Your task to perform on an android device: toggle location history Image 0: 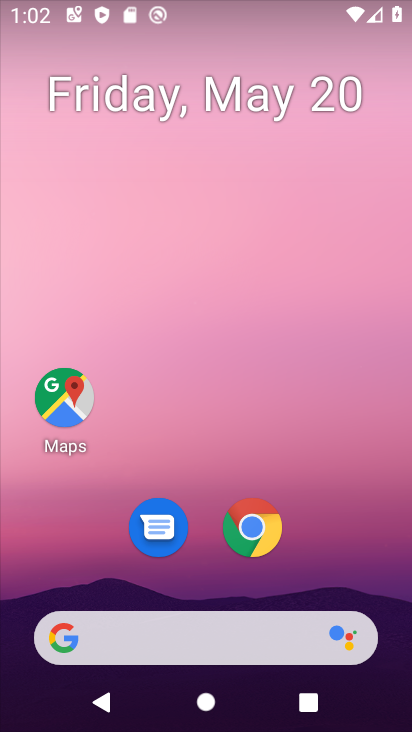
Step 0: press home button
Your task to perform on an android device: toggle location history Image 1: 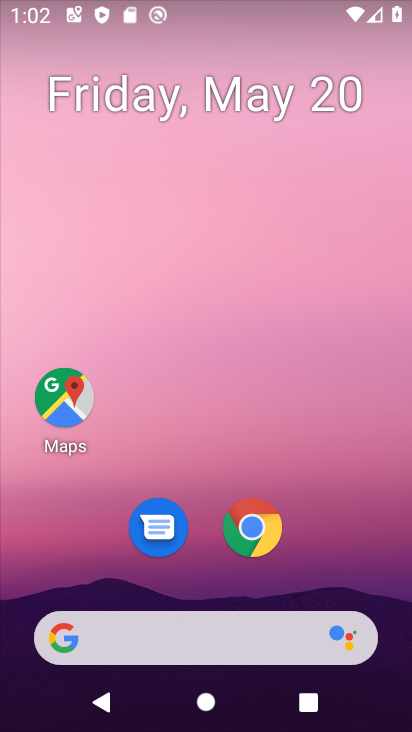
Step 1: click (285, 82)
Your task to perform on an android device: toggle location history Image 2: 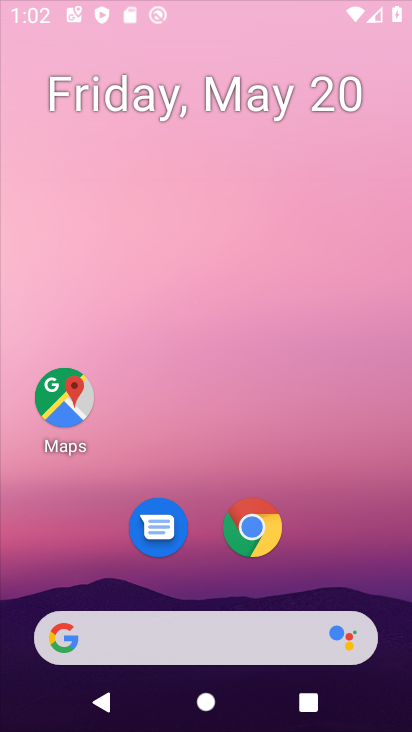
Step 2: drag from (177, 629) to (301, 368)
Your task to perform on an android device: toggle location history Image 3: 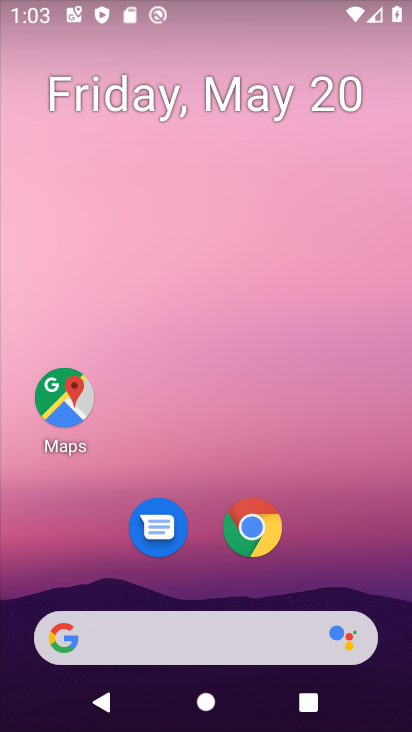
Step 3: click (65, 398)
Your task to perform on an android device: toggle location history Image 4: 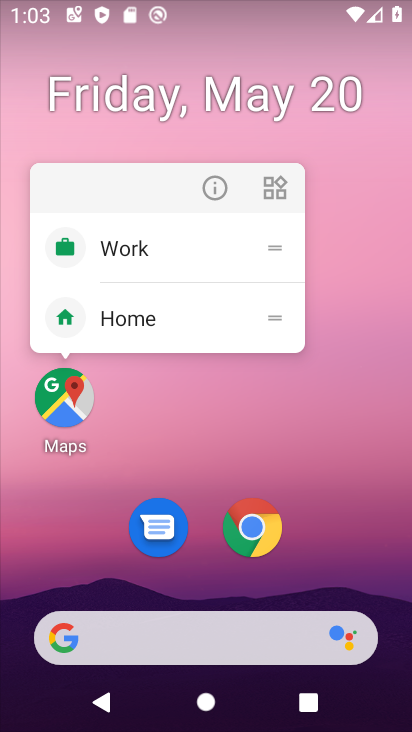
Step 4: click (57, 413)
Your task to perform on an android device: toggle location history Image 5: 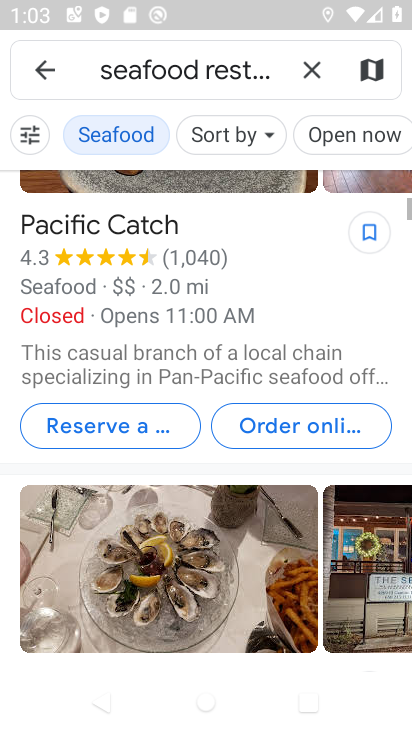
Step 5: click (51, 69)
Your task to perform on an android device: toggle location history Image 6: 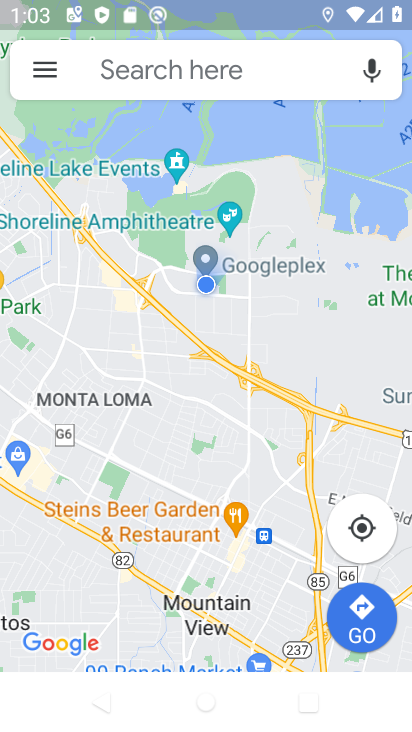
Step 6: click (45, 71)
Your task to perform on an android device: toggle location history Image 7: 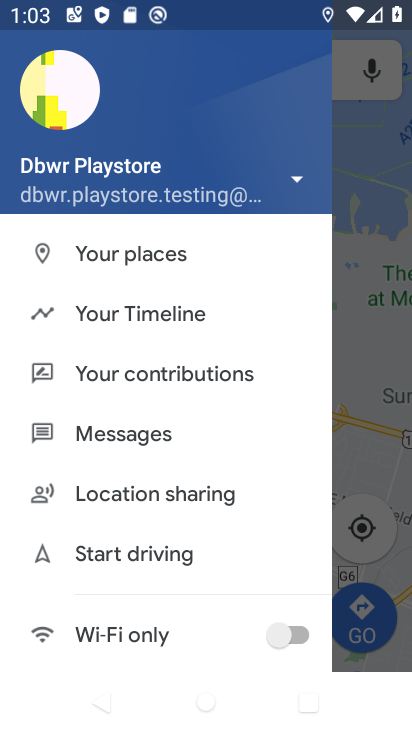
Step 7: click (123, 310)
Your task to perform on an android device: toggle location history Image 8: 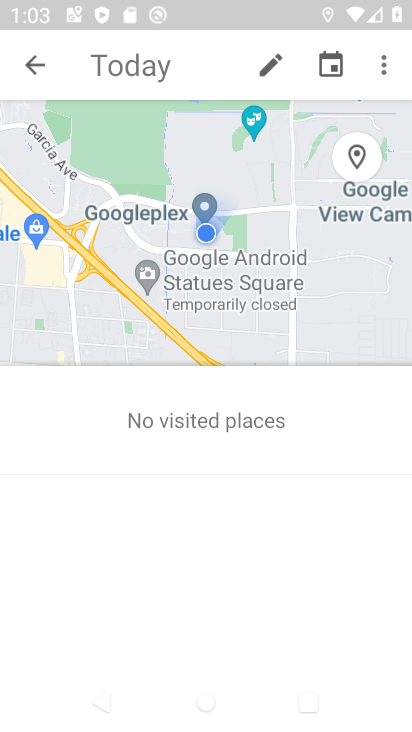
Step 8: click (382, 70)
Your task to perform on an android device: toggle location history Image 9: 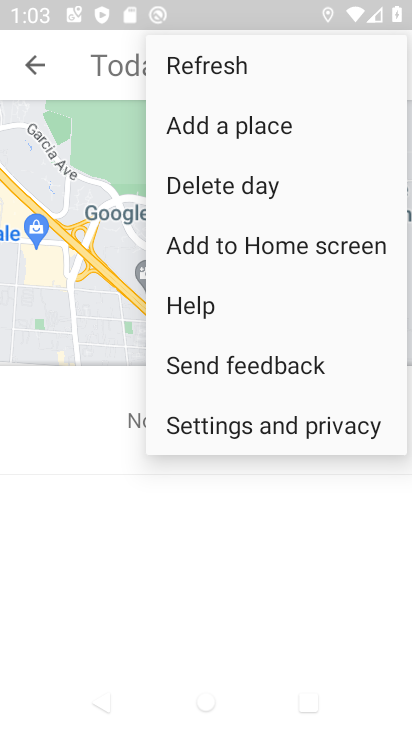
Step 9: click (272, 428)
Your task to perform on an android device: toggle location history Image 10: 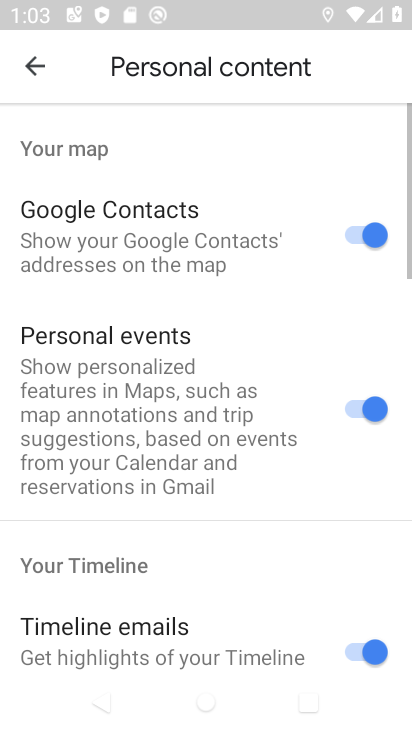
Step 10: drag from (168, 597) to (291, 167)
Your task to perform on an android device: toggle location history Image 11: 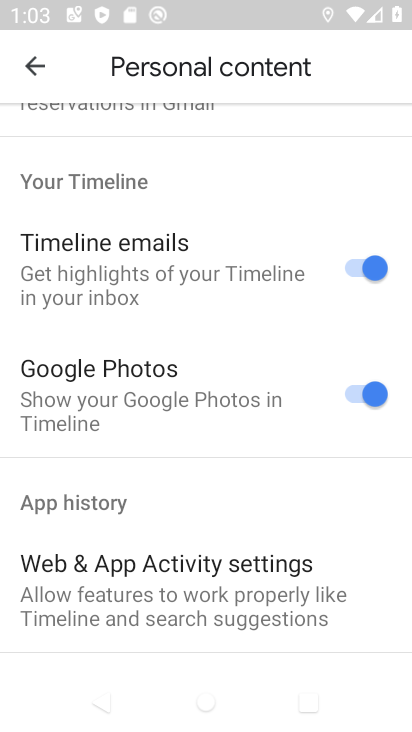
Step 11: drag from (168, 525) to (277, 213)
Your task to perform on an android device: toggle location history Image 12: 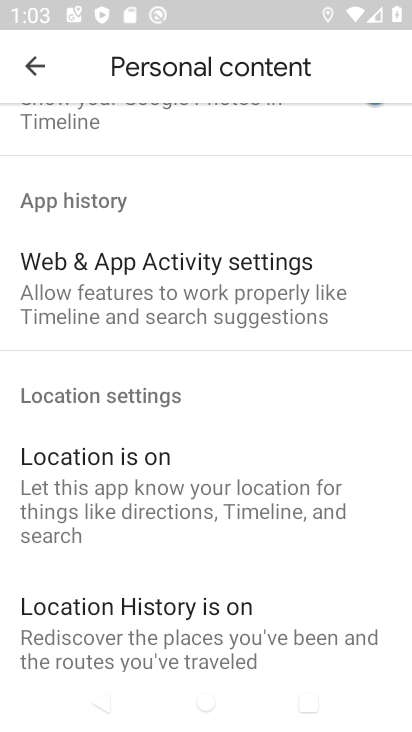
Step 12: drag from (173, 557) to (245, 300)
Your task to perform on an android device: toggle location history Image 13: 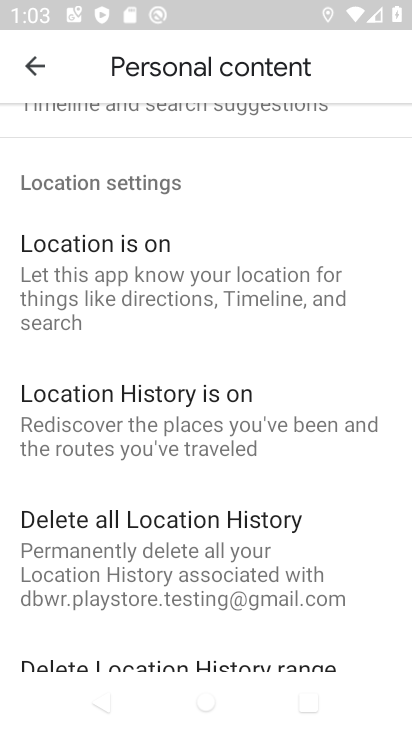
Step 13: click (170, 419)
Your task to perform on an android device: toggle location history Image 14: 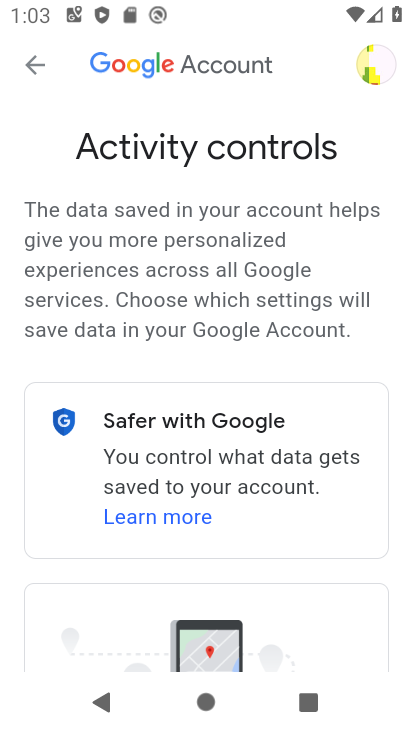
Step 14: drag from (239, 576) to (349, 82)
Your task to perform on an android device: toggle location history Image 15: 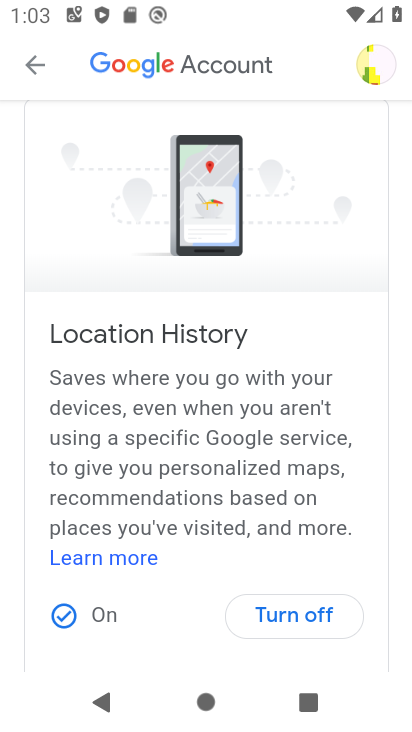
Step 15: click (293, 615)
Your task to perform on an android device: toggle location history Image 16: 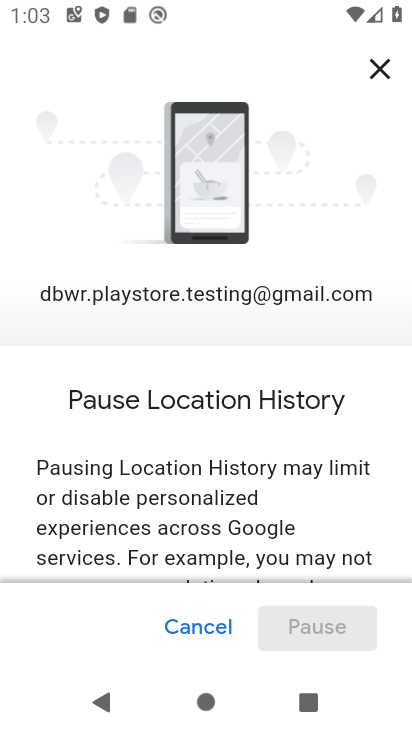
Step 16: drag from (231, 541) to (312, 187)
Your task to perform on an android device: toggle location history Image 17: 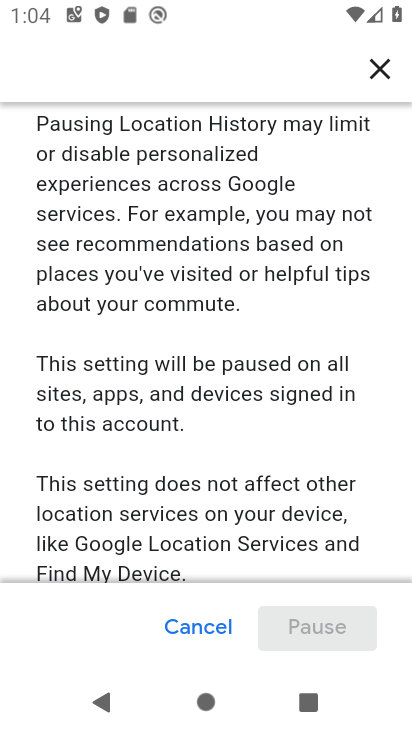
Step 17: drag from (218, 477) to (334, 92)
Your task to perform on an android device: toggle location history Image 18: 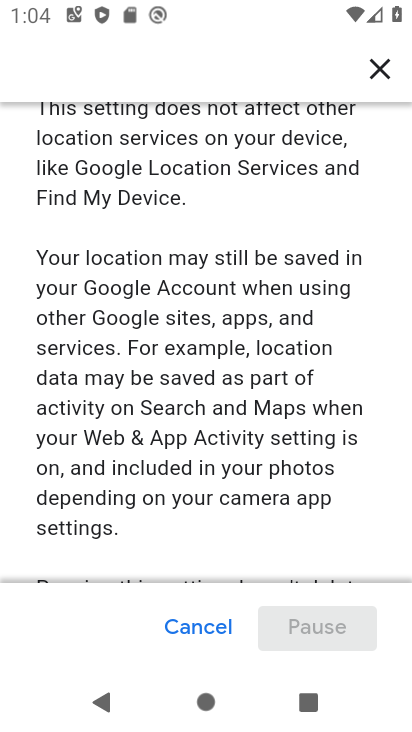
Step 18: drag from (294, 542) to (380, 144)
Your task to perform on an android device: toggle location history Image 19: 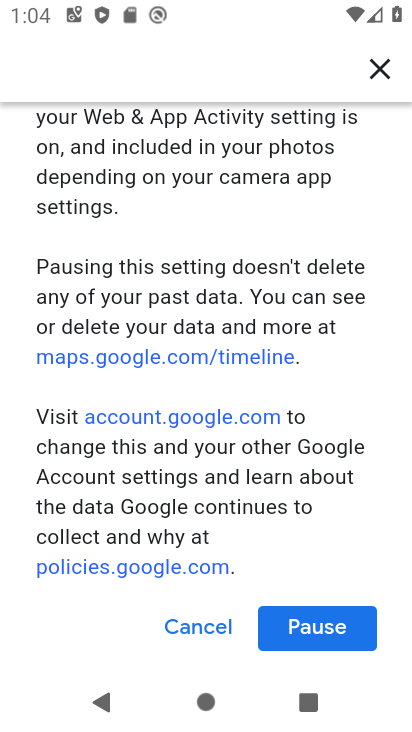
Step 19: click (316, 629)
Your task to perform on an android device: toggle location history Image 20: 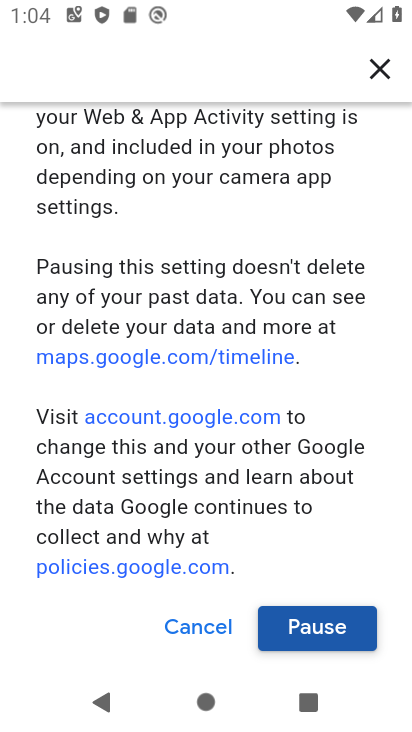
Step 20: click (316, 629)
Your task to perform on an android device: toggle location history Image 21: 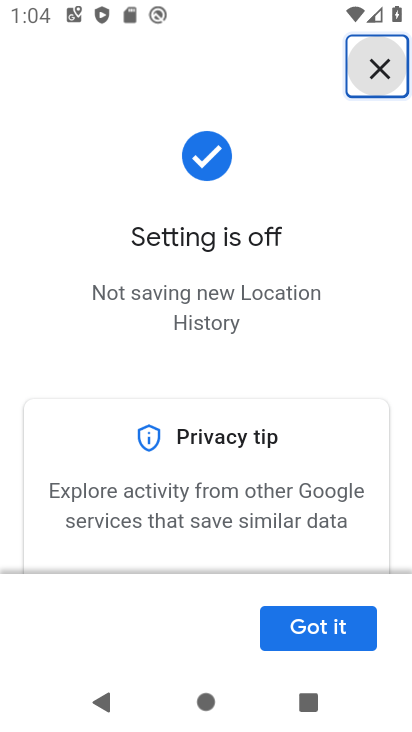
Step 21: click (320, 639)
Your task to perform on an android device: toggle location history Image 22: 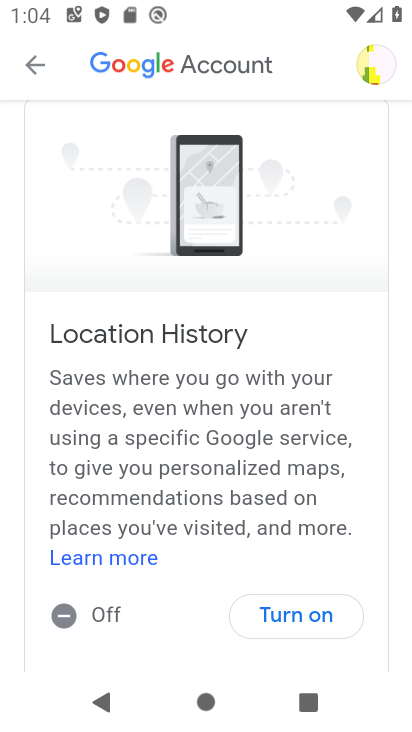
Step 22: task complete